Your task to perform on an android device: See recent photos Image 0: 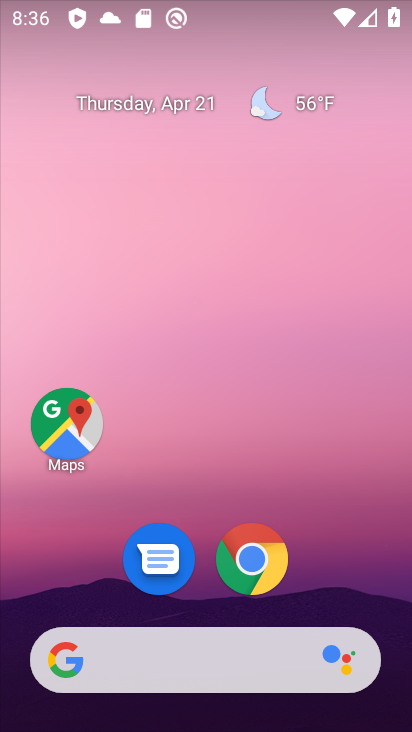
Step 0: drag from (347, 375) to (339, 282)
Your task to perform on an android device: See recent photos Image 1: 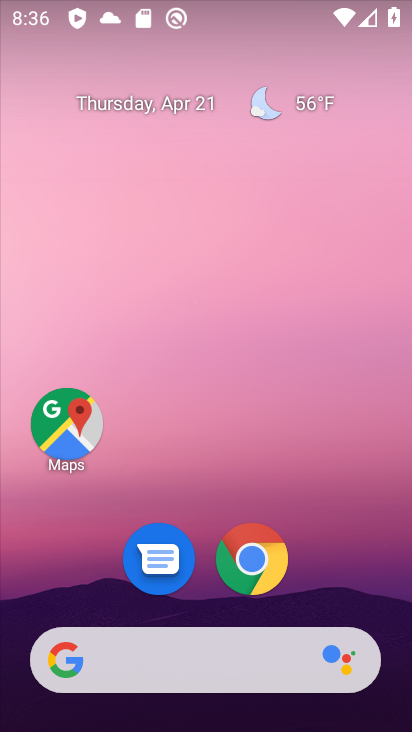
Step 1: drag from (331, 485) to (312, 142)
Your task to perform on an android device: See recent photos Image 2: 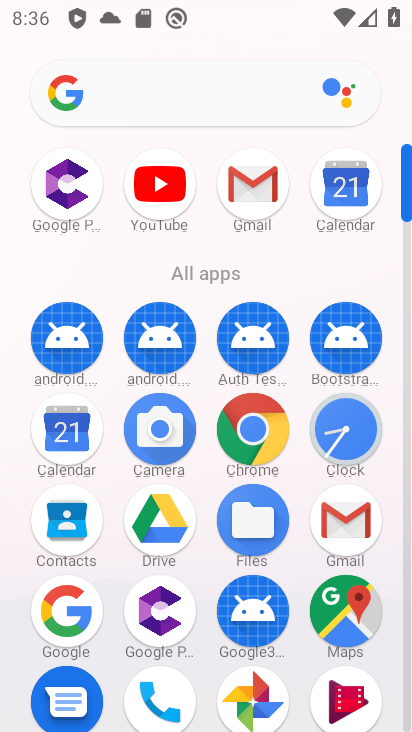
Step 2: drag from (214, 612) to (218, 417)
Your task to perform on an android device: See recent photos Image 3: 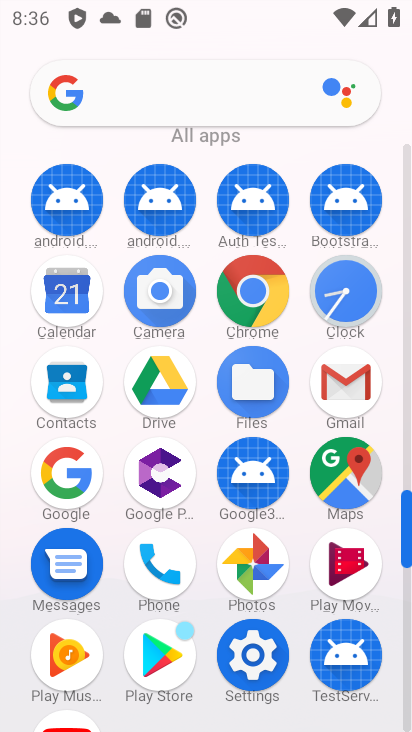
Step 3: click (260, 587)
Your task to perform on an android device: See recent photos Image 4: 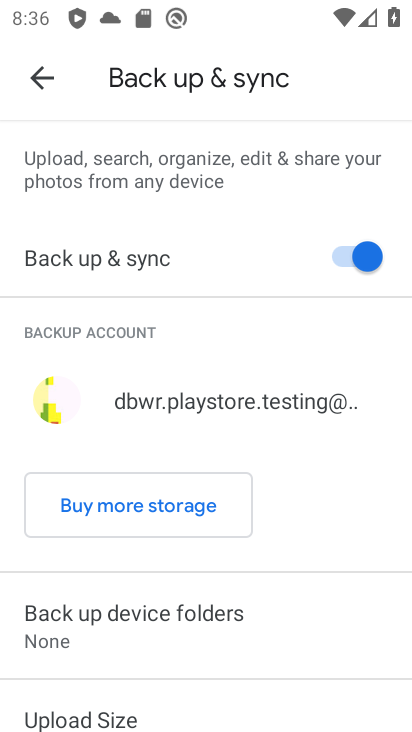
Step 4: task complete